Your task to perform on an android device: turn on showing notifications on the lock screen Image 0: 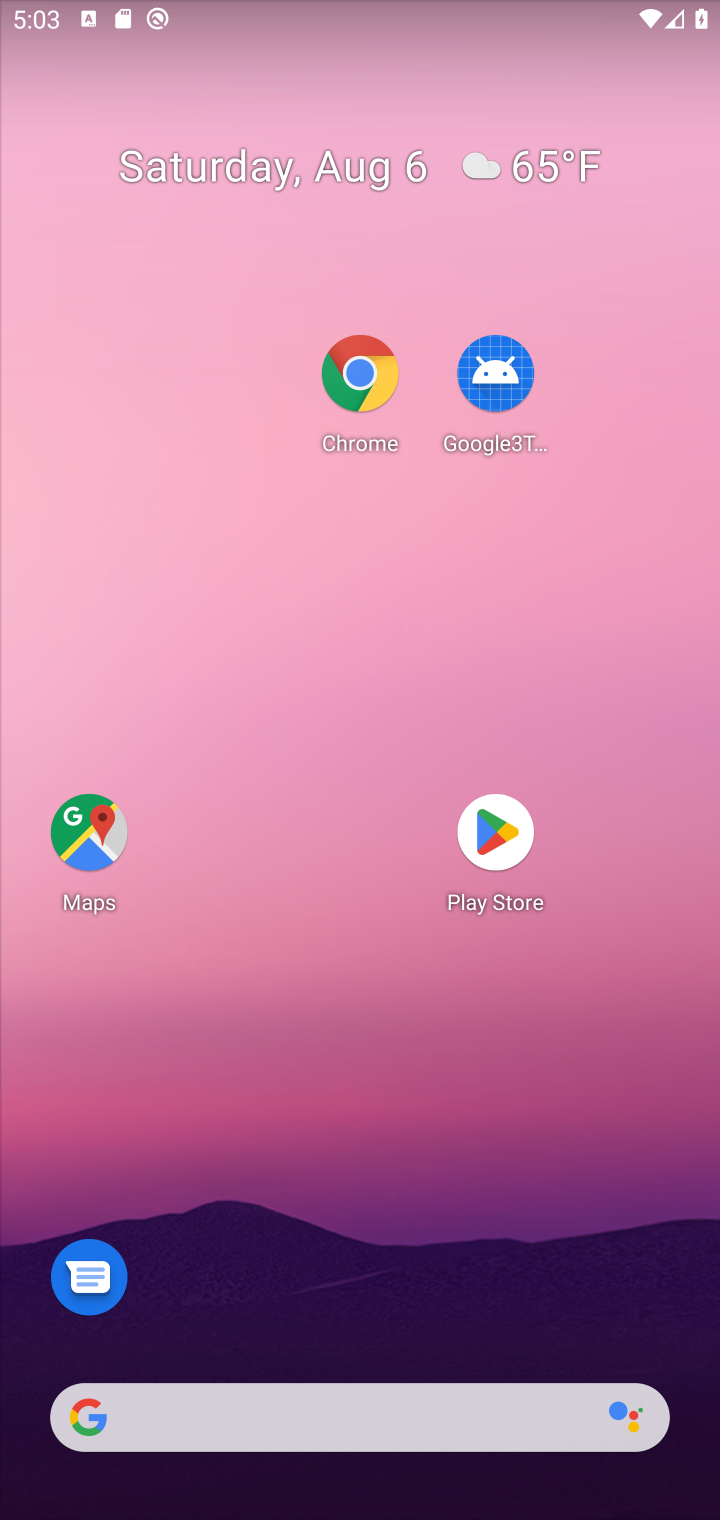
Step 0: drag from (455, 884) to (314, 15)
Your task to perform on an android device: turn on showing notifications on the lock screen Image 1: 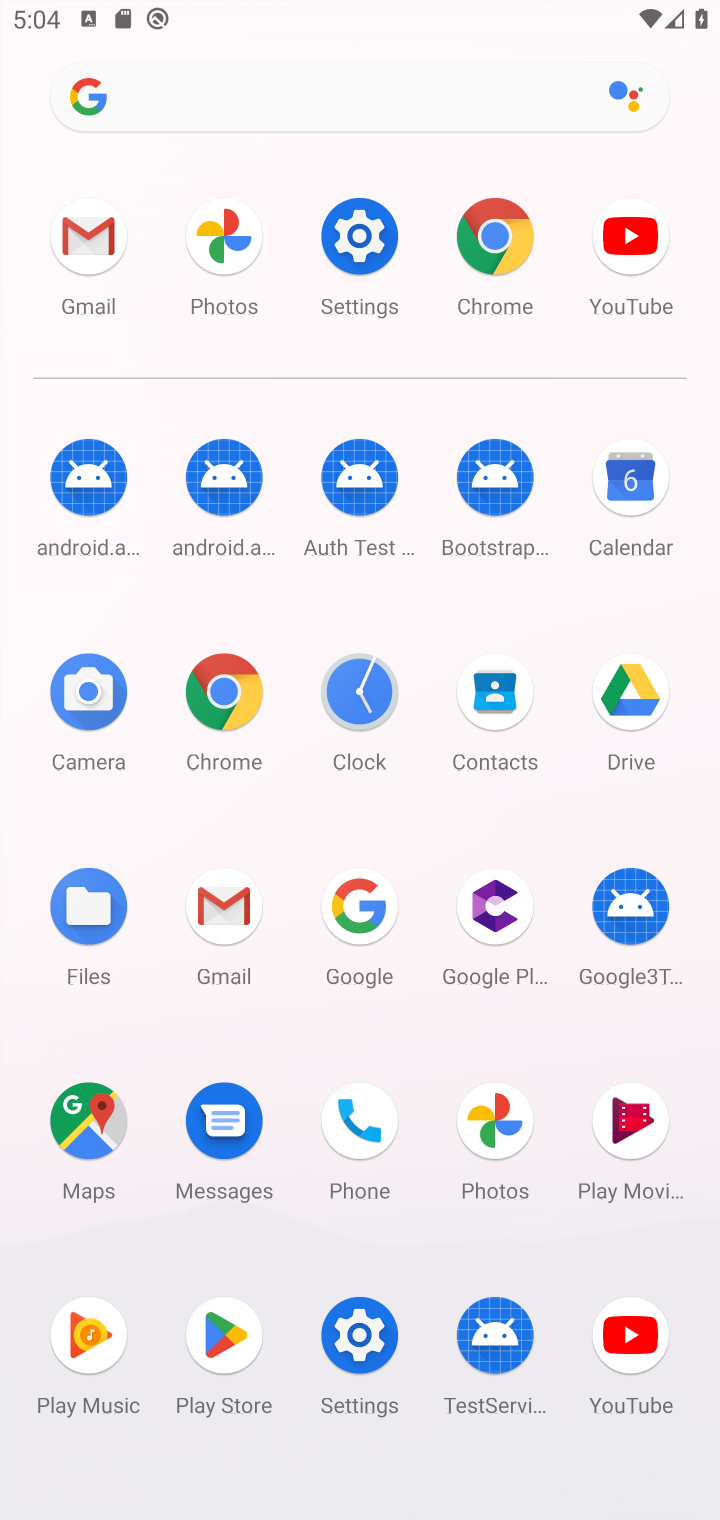
Step 1: click (361, 233)
Your task to perform on an android device: turn on showing notifications on the lock screen Image 2: 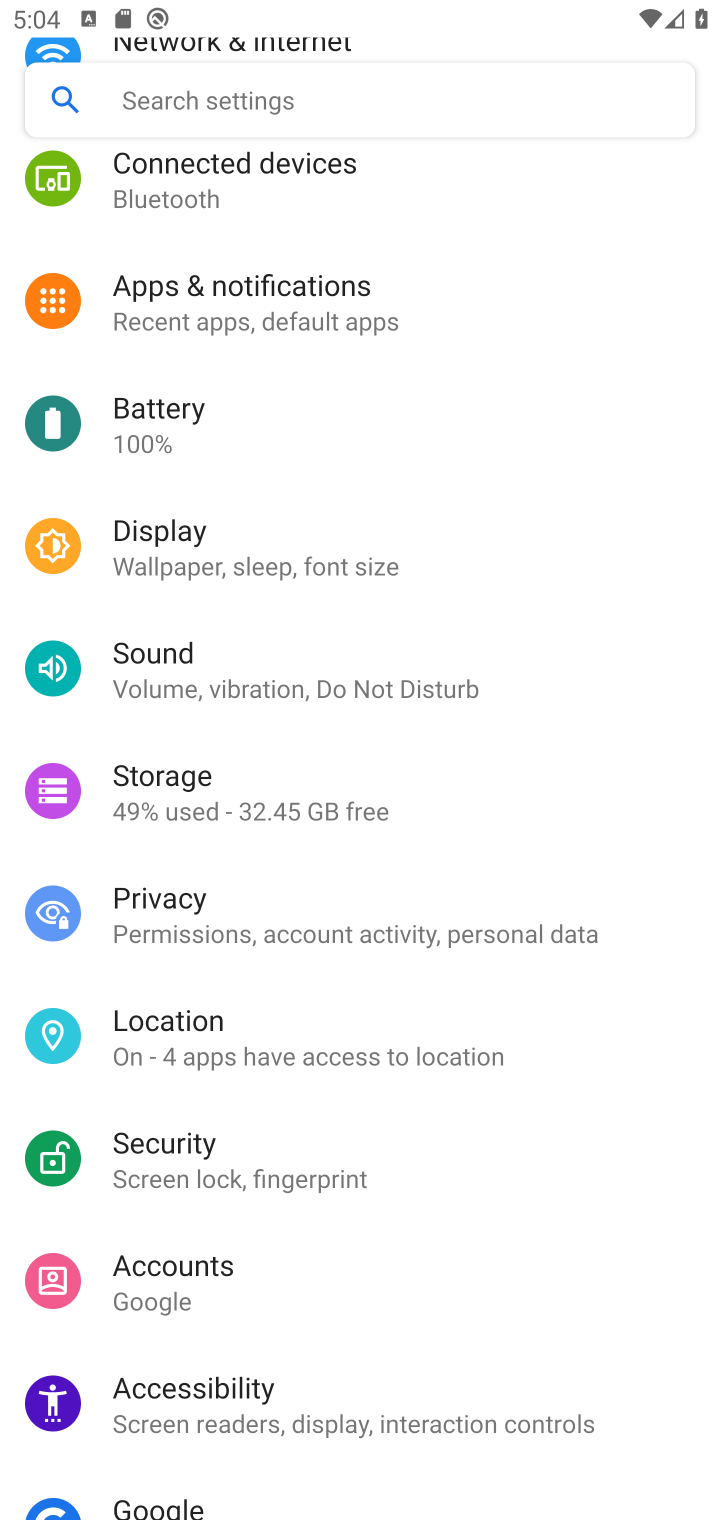
Step 2: click (291, 289)
Your task to perform on an android device: turn on showing notifications on the lock screen Image 3: 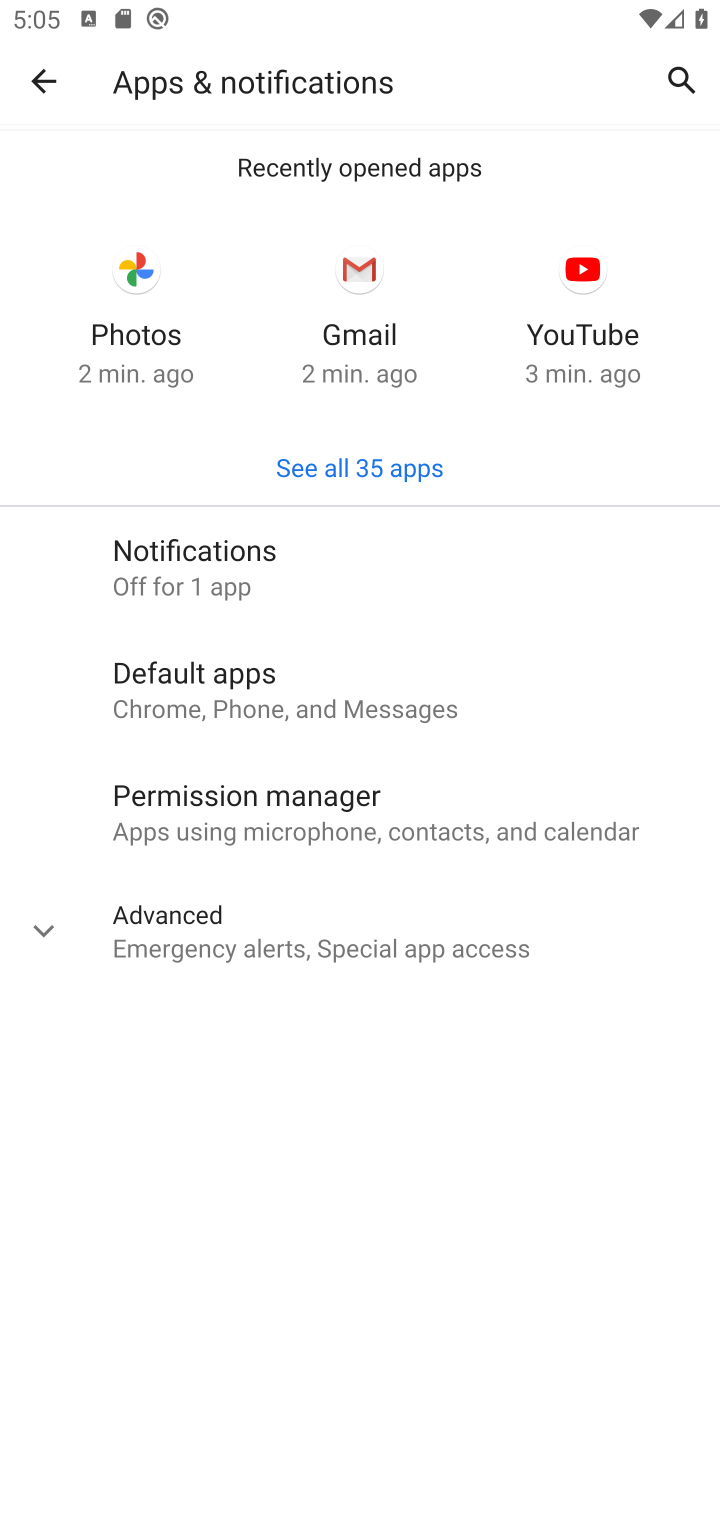
Step 3: click (201, 573)
Your task to perform on an android device: turn on showing notifications on the lock screen Image 4: 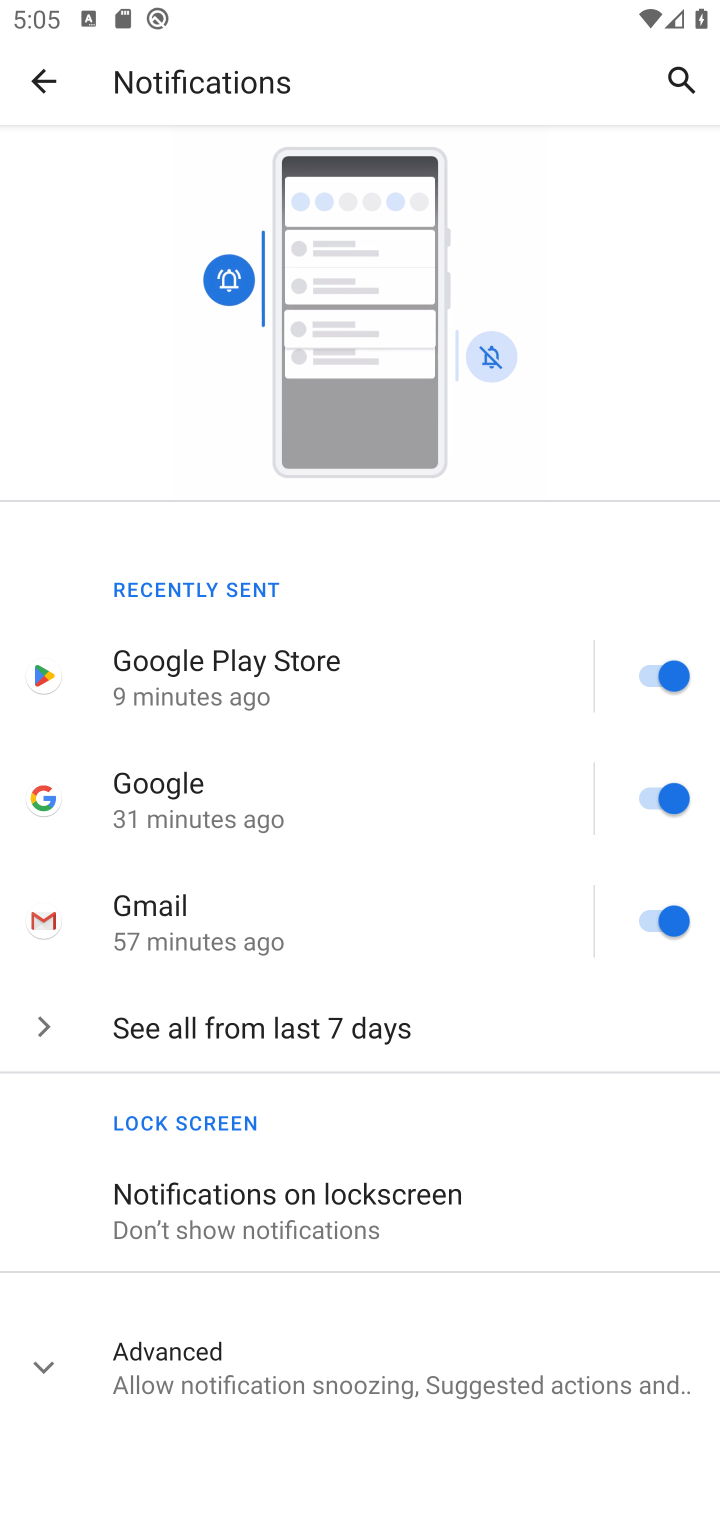
Step 4: click (338, 1379)
Your task to perform on an android device: turn on showing notifications on the lock screen Image 5: 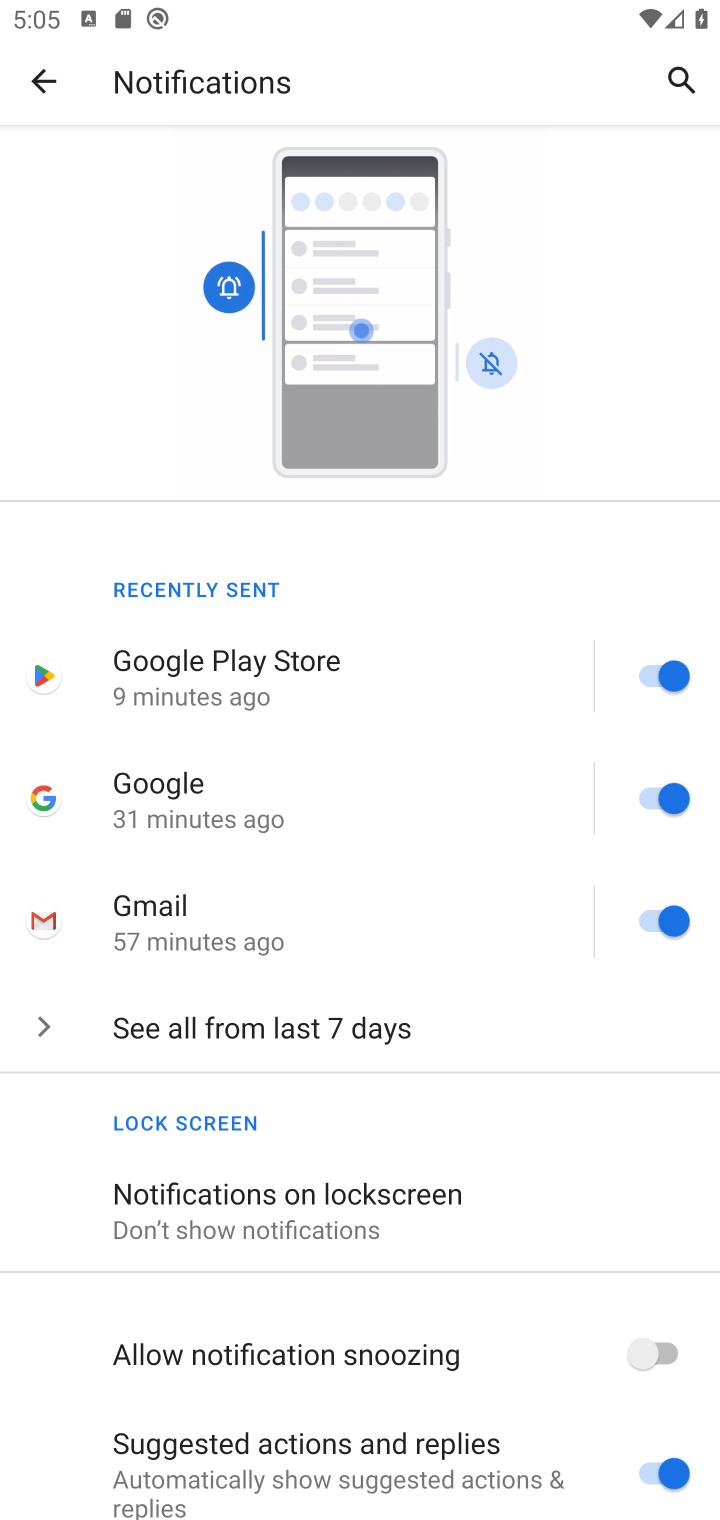
Step 5: drag from (445, 1396) to (469, 913)
Your task to perform on an android device: turn on showing notifications on the lock screen Image 6: 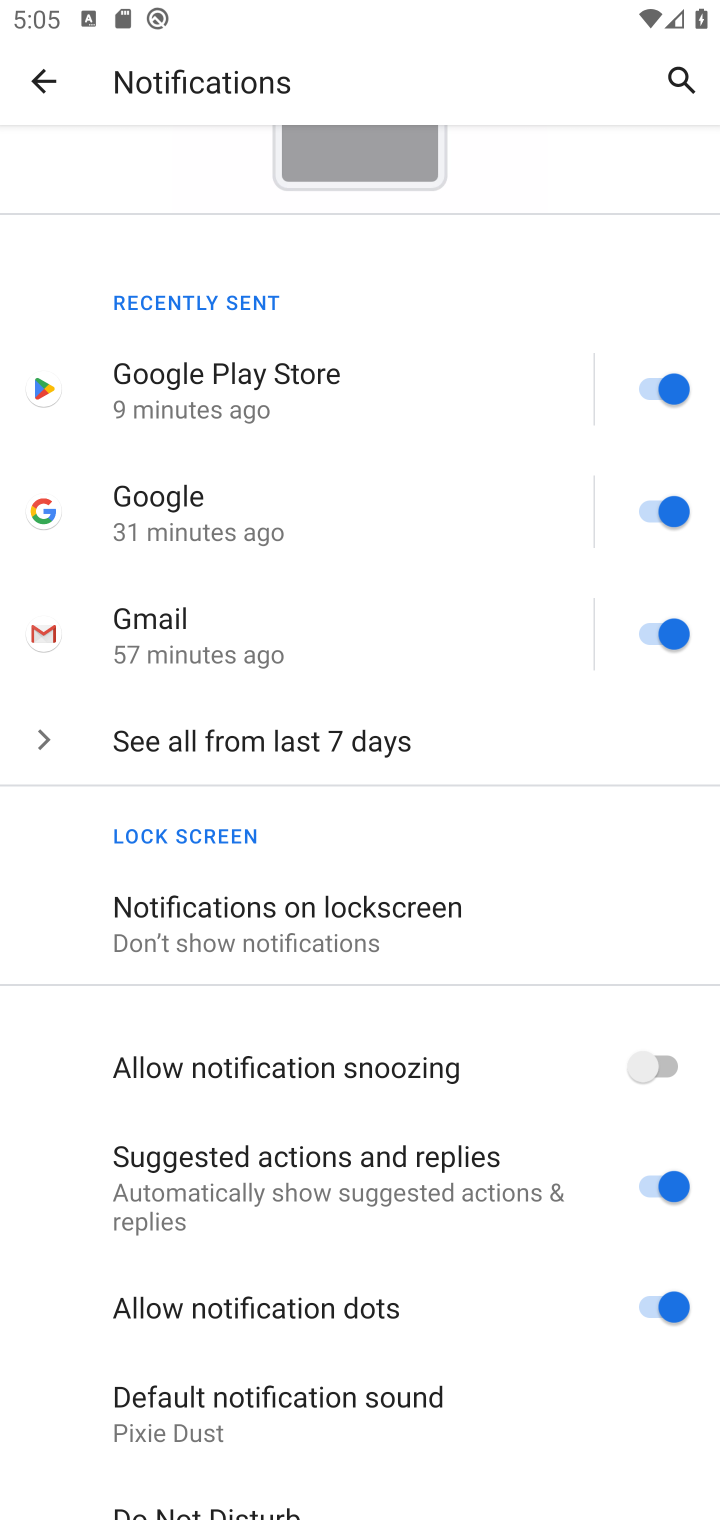
Step 6: click (326, 973)
Your task to perform on an android device: turn on showing notifications on the lock screen Image 7: 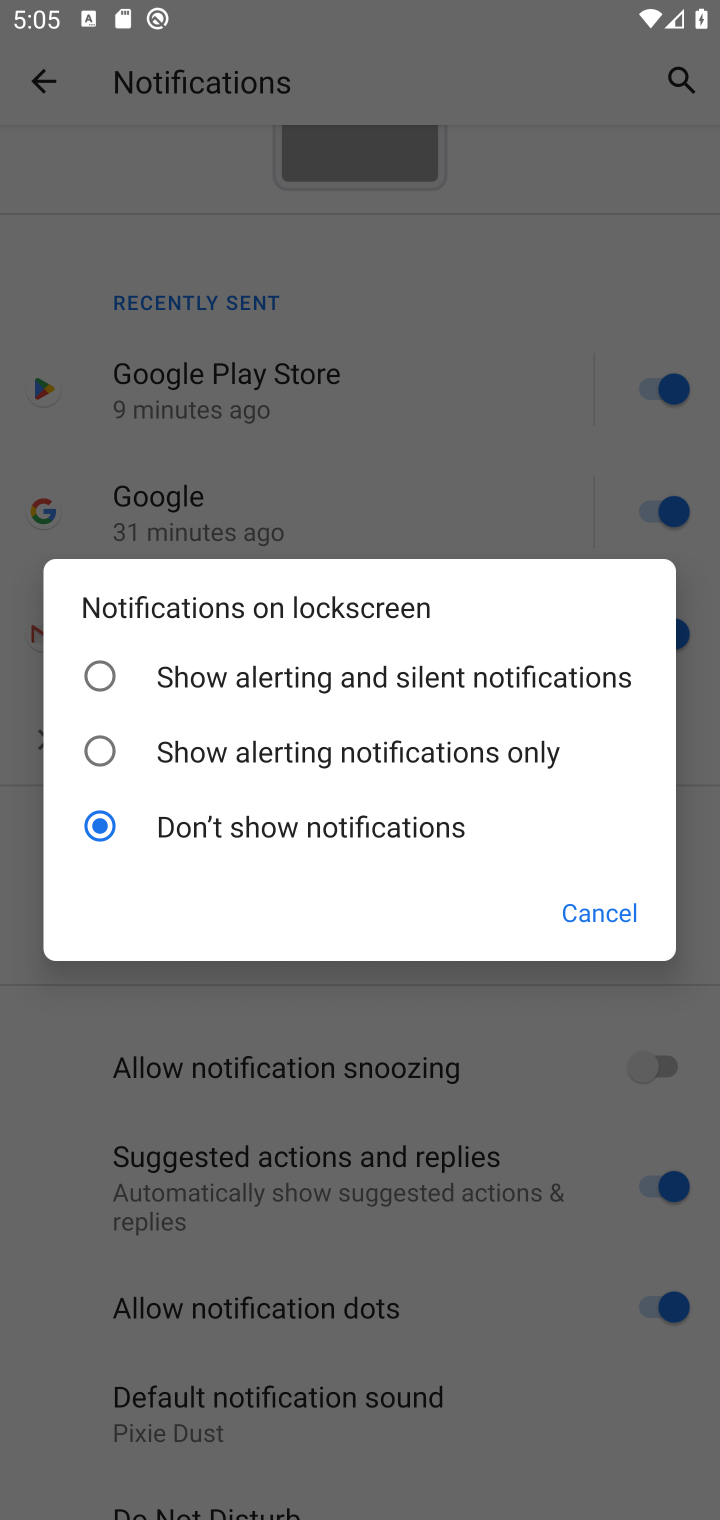
Step 7: click (106, 665)
Your task to perform on an android device: turn on showing notifications on the lock screen Image 8: 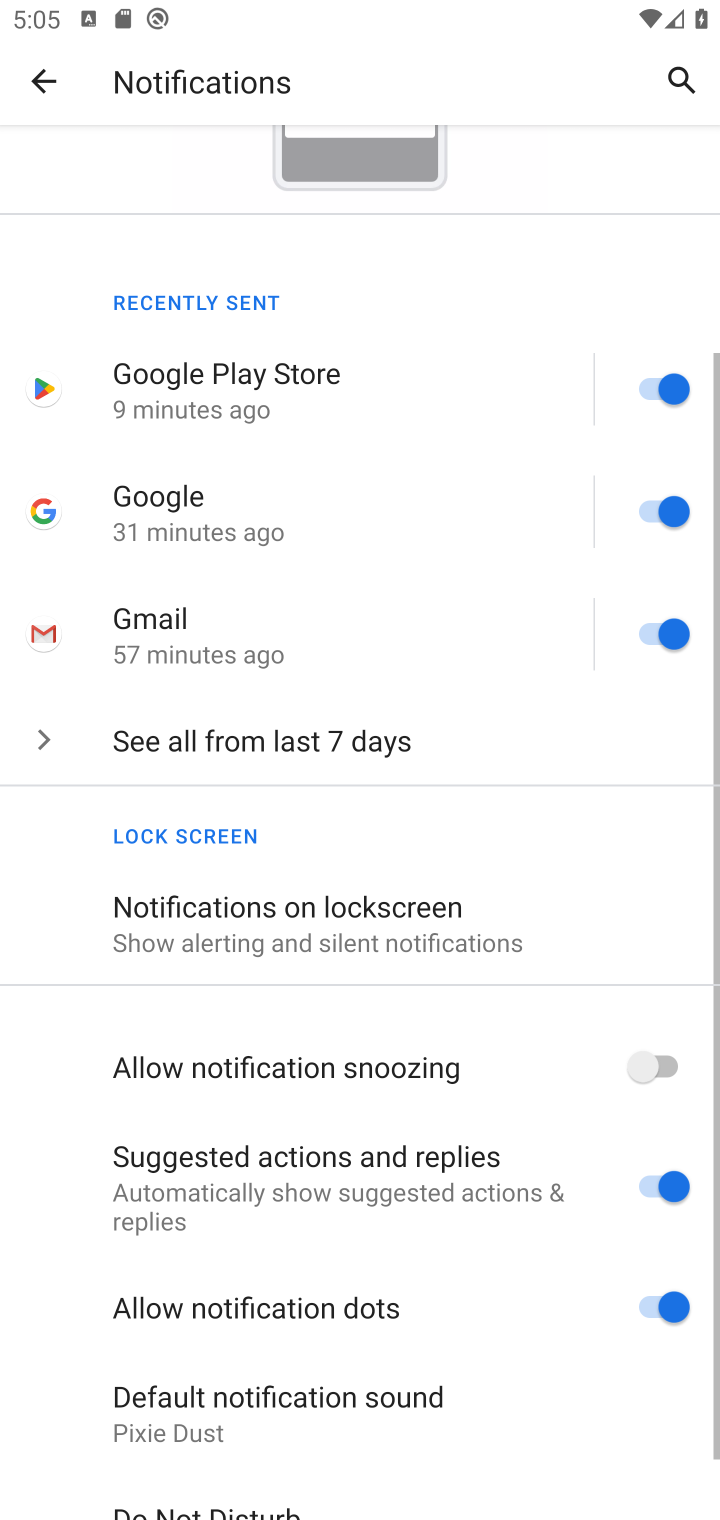
Step 8: task complete